Your task to perform on an android device: set the timer Image 0: 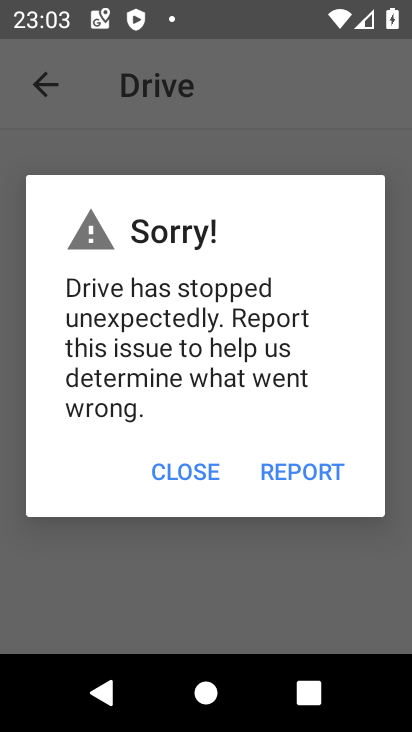
Step 0: click (194, 482)
Your task to perform on an android device: set the timer Image 1: 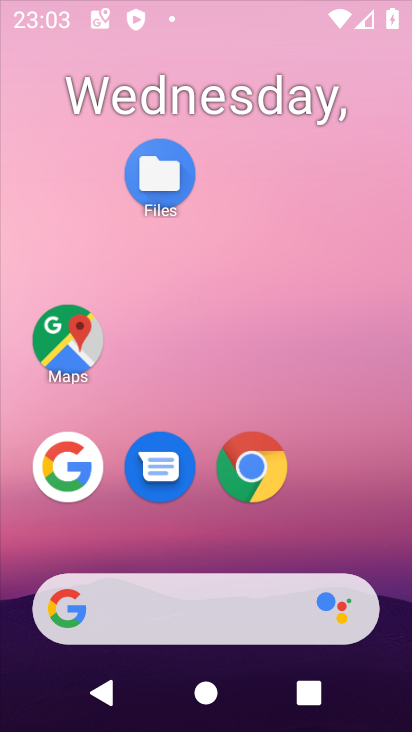
Step 1: press home button
Your task to perform on an android device: set the timer Image 2: 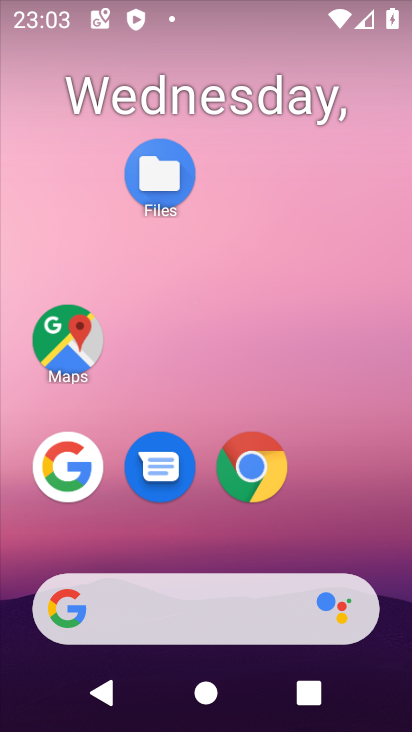
Step 2: drag from (222, 539) to (170, 67)
Your task to perform on an android device: set the timer Image 3: 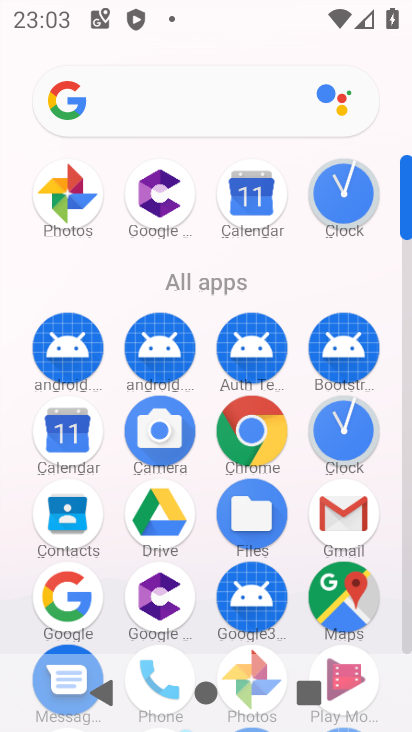
Step 3: click (334, 426)
Your task to perform on an android device: set the timer Image 4: 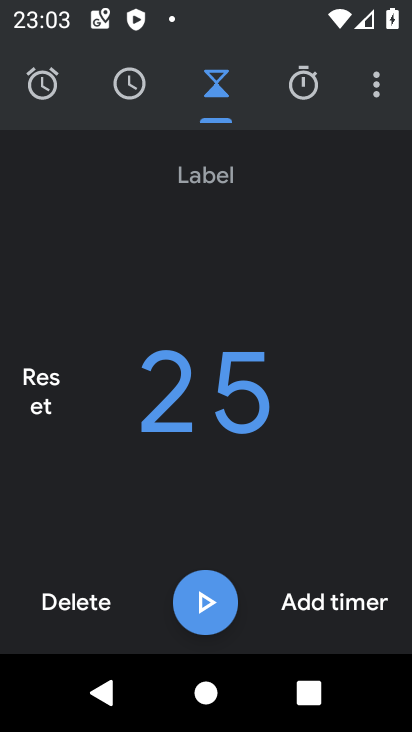
Step 4: click (289, 604)
Your task to perform on an android device: set the timer Image 5: 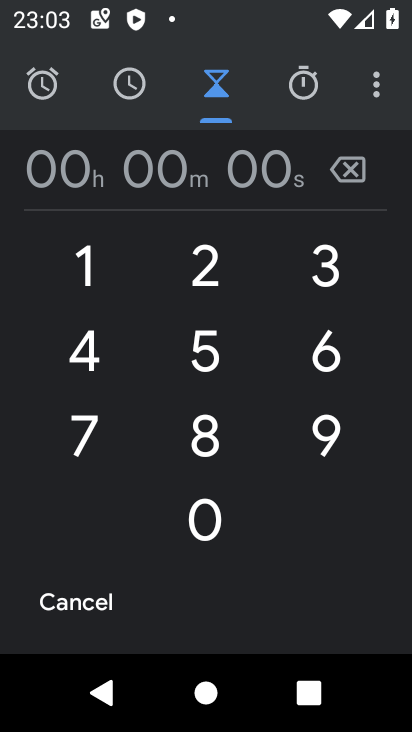
Step 5: click (208, 453)
Your task to perform on an android device: set the timer Image 6: 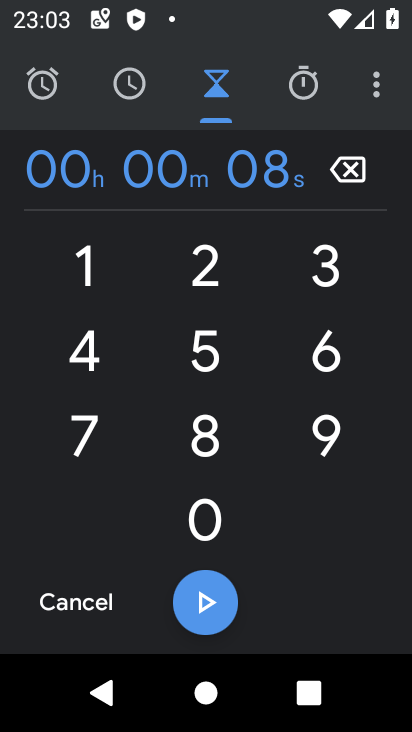
Step 6: click (203, 475)
Your task to perform on an android device: set the timer Image 7: 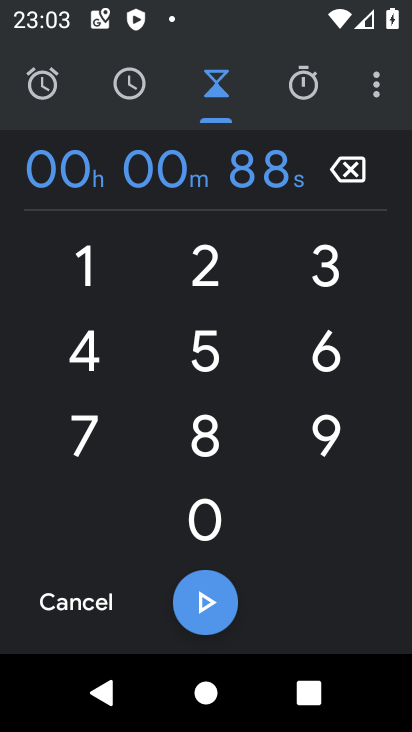
Step 7: click (208, 606)
Your task to perform on an android device: set the timer Image 8: 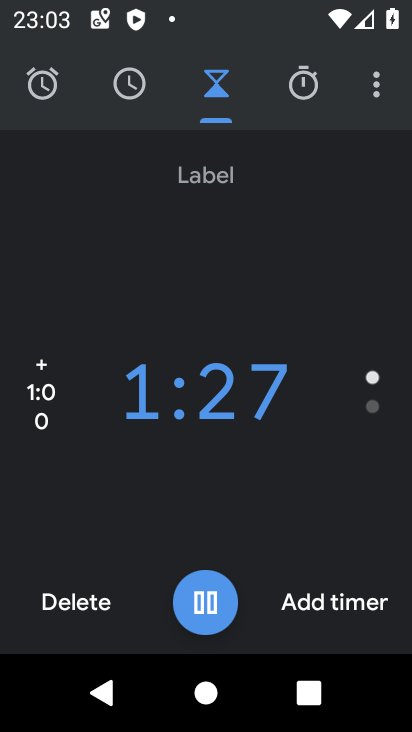
Step 8: task complete